Your task to perform on an android device: change notifications settings Image 0: 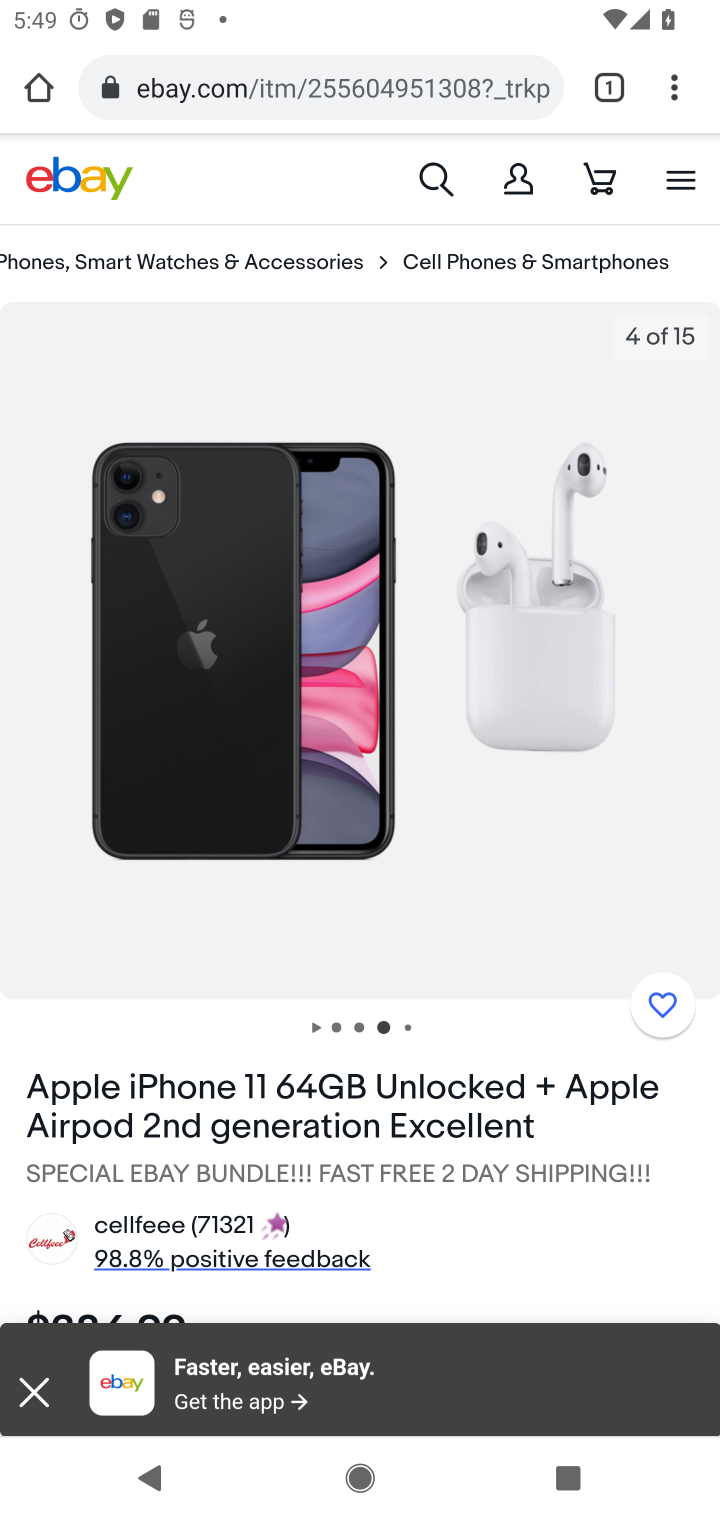
Step 0: press home button
Your task to perform on an android device: change notifications settings Image 1: 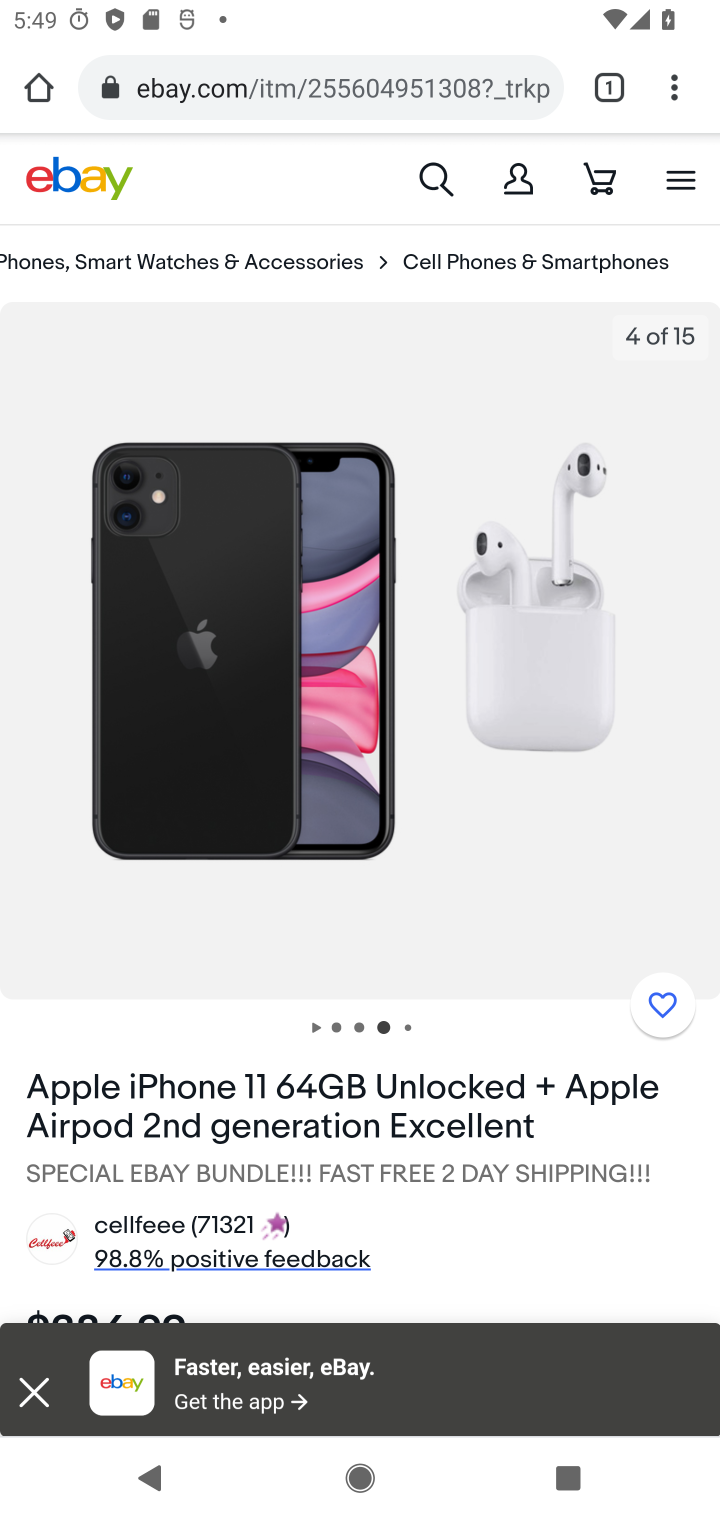
Step 1: press home button
Your task to perform on an android device: change notifications settings Image 2: 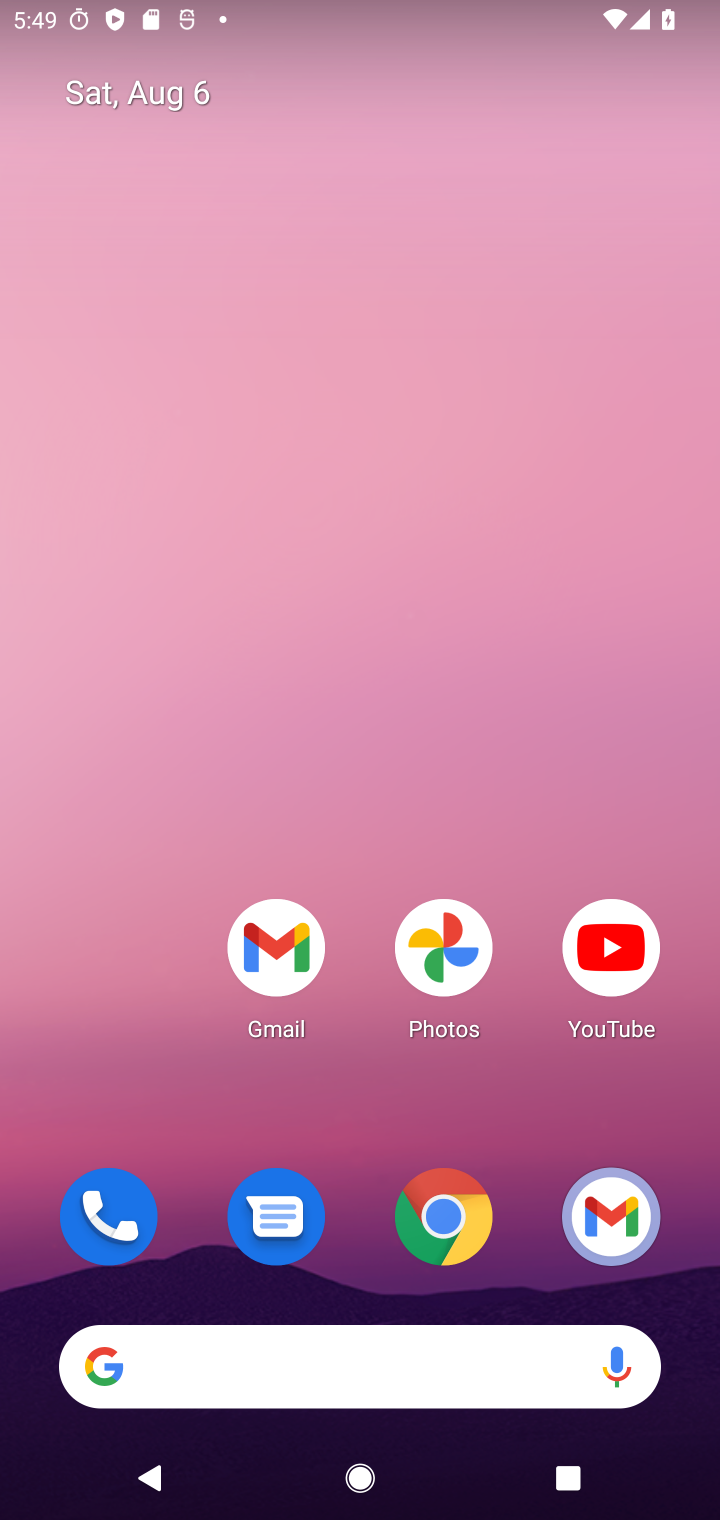
Step 2: drag from (355, 893) to (319, 20)
Your task to perform on an android device: change notifications settings Image 3: 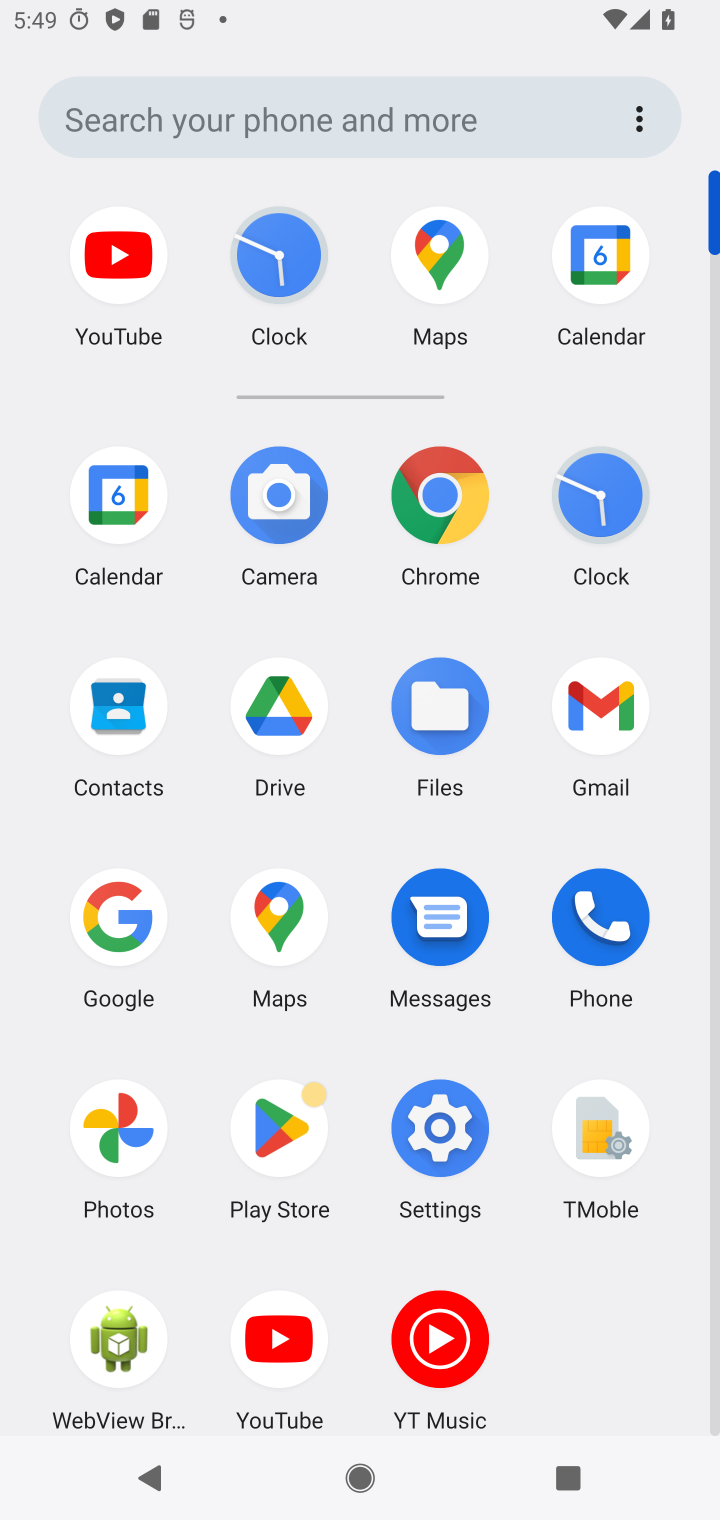
Step 3: click (448, 1120)
Your task to perform on an android device: change notifications settings Image 4: 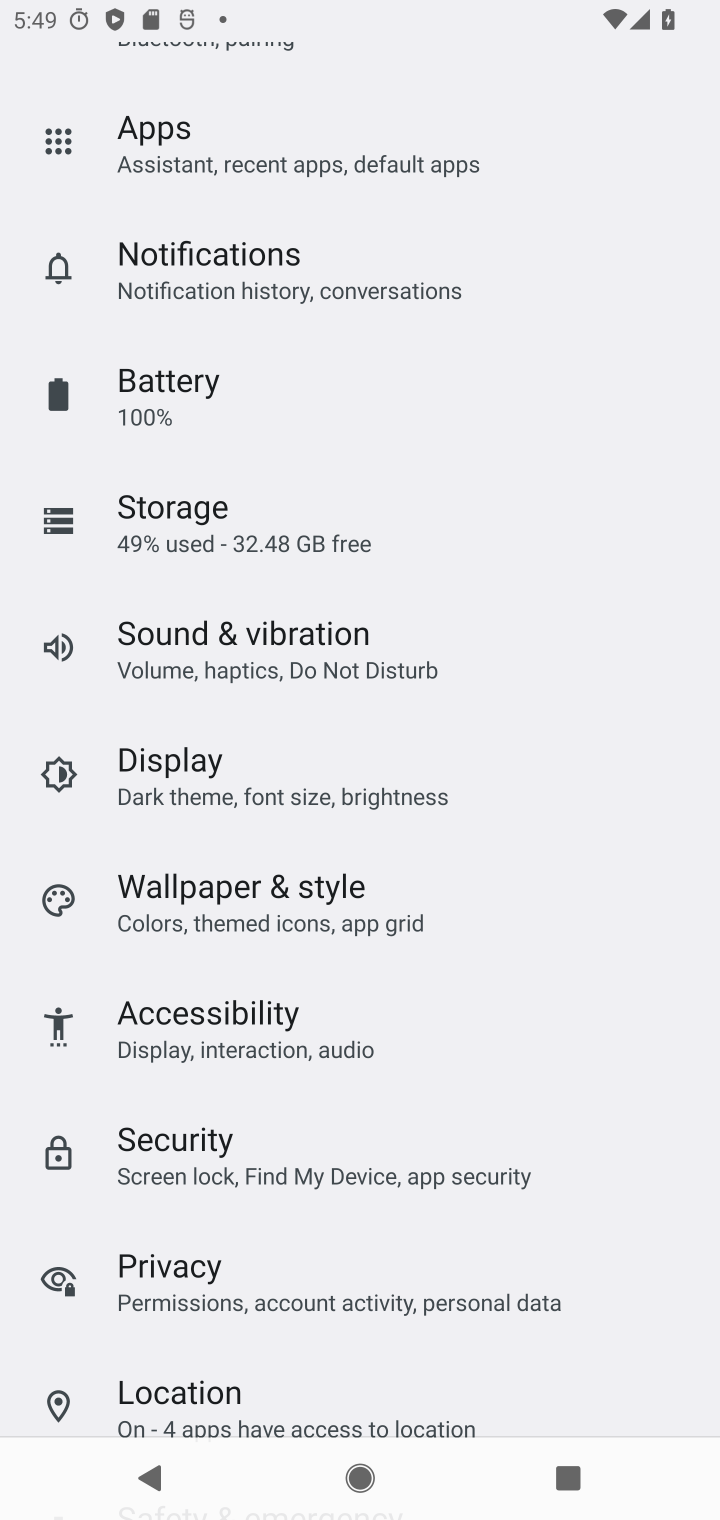
Step 4: click (277, 252)
Your task to perform on an android device: change notifications settings Image 5: 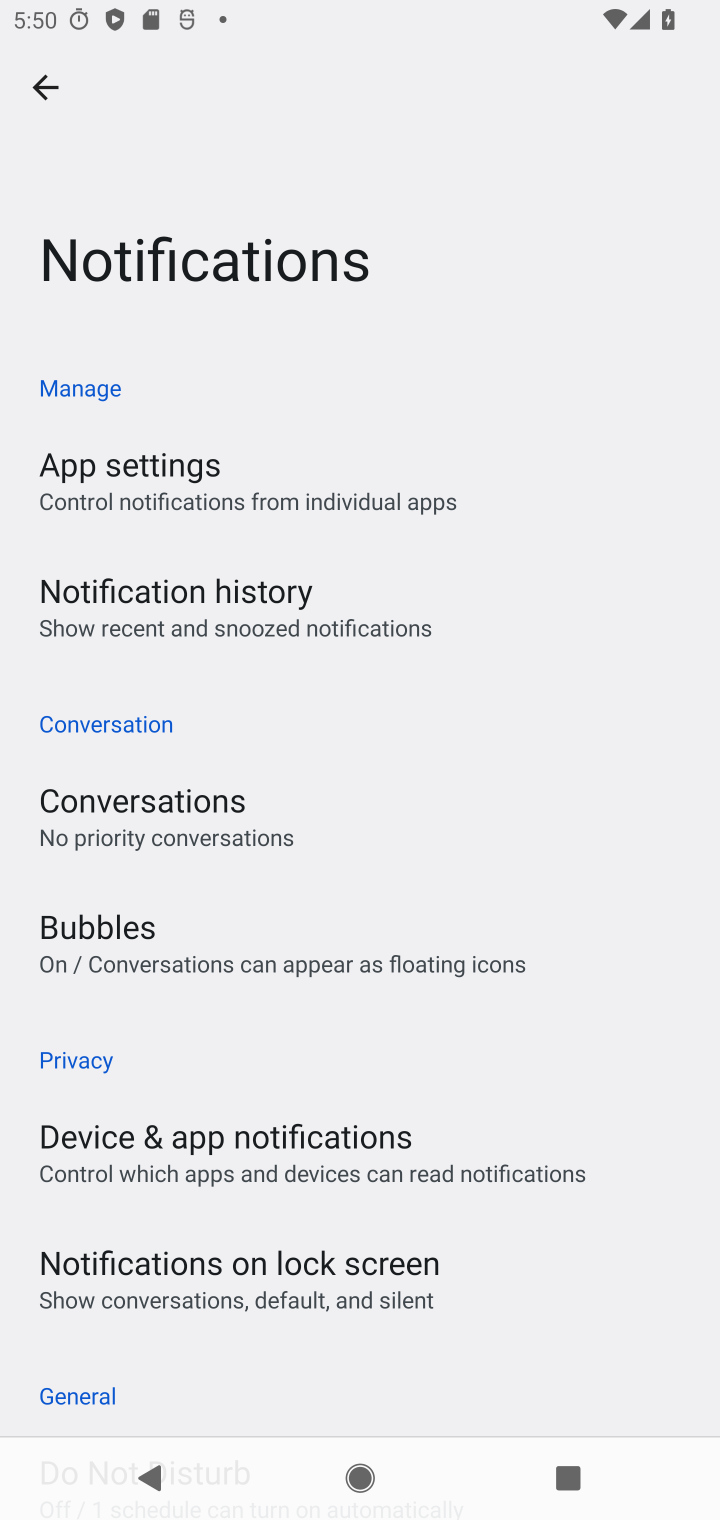
Step 5: task complete